Your task to perform on an android device: Show me productivity apps on the Play Store Image 0: 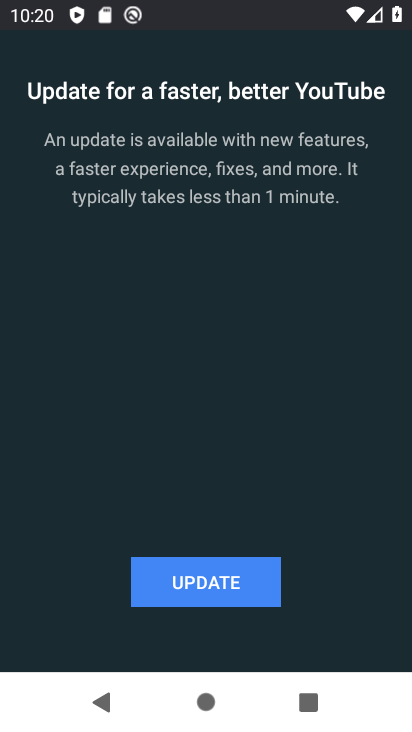
Step 0: press home button
Your task to perform on an android device: Show me productivity apps on the Play Store Image 1: 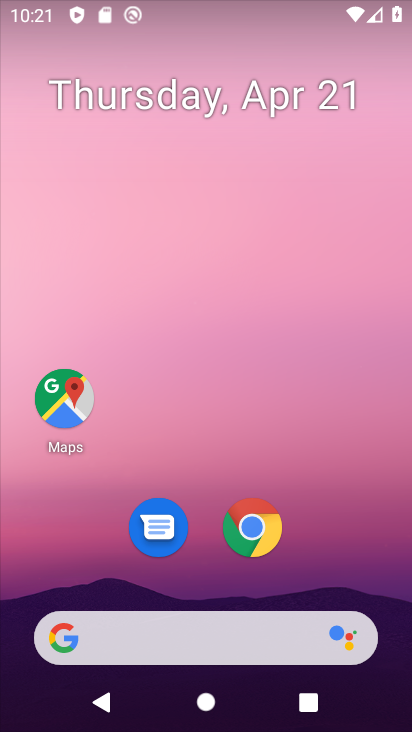
Step 1: drag from (366, 586) to (397, 121)
Your task to perform on an android device: Show me productivity apps on the Play Store Image 2: 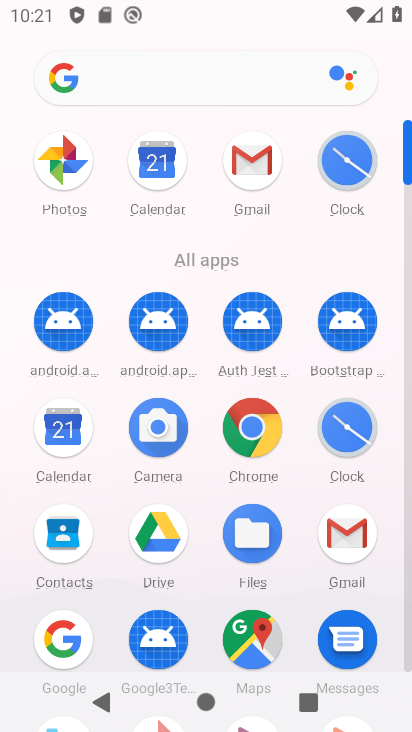
Step 2: drag from (217, 614) to (229, 332)
Your task to perform on an android device: Show me productivity apps on the Play Store Image 3: 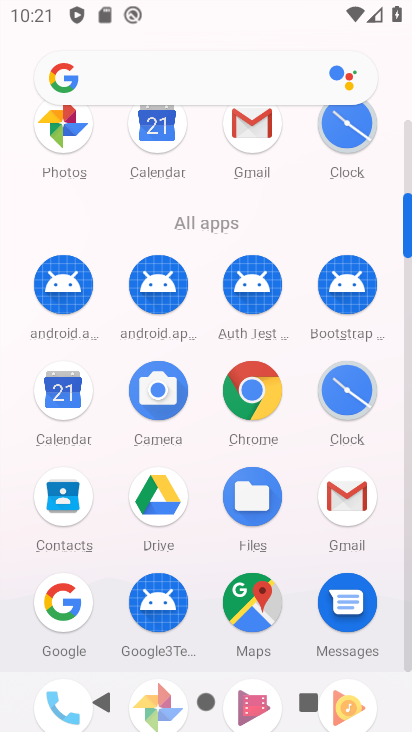
Step 3: drag from (214, 668) to (229, 383)
Your task to perform on an android device: Show me productivity apps on the Play Store Image 4: 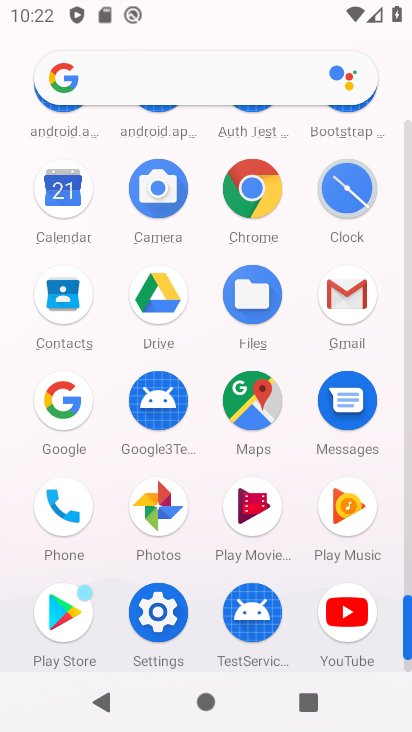
Step 4: click (68, 595)
Your task to perform on an android device: Show me productivity apps on the Play Store Image 5: 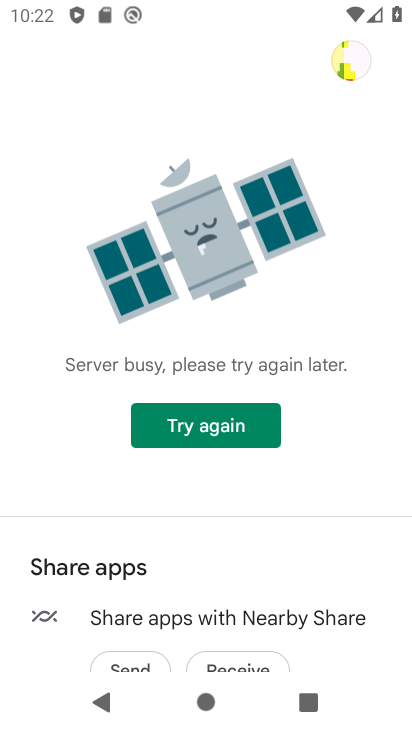
Step 5: press back button
Your task to perform on an android device: Show me productivity apps on the Play Store Image 6: 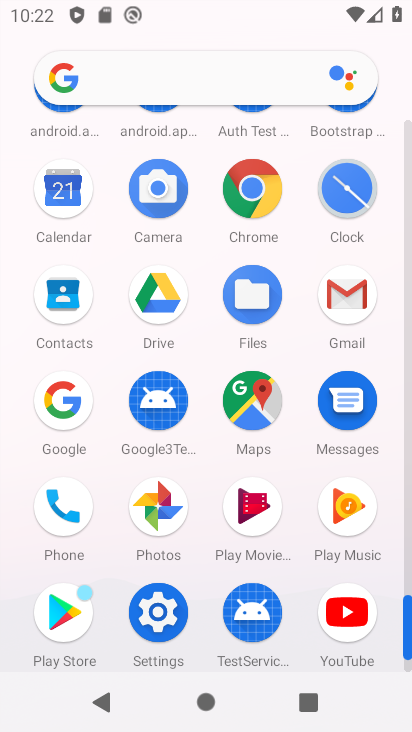
Step 6: click (51, 612)
Your task to perform on an android device: Show me productivity apps on the Play Store Image 7: 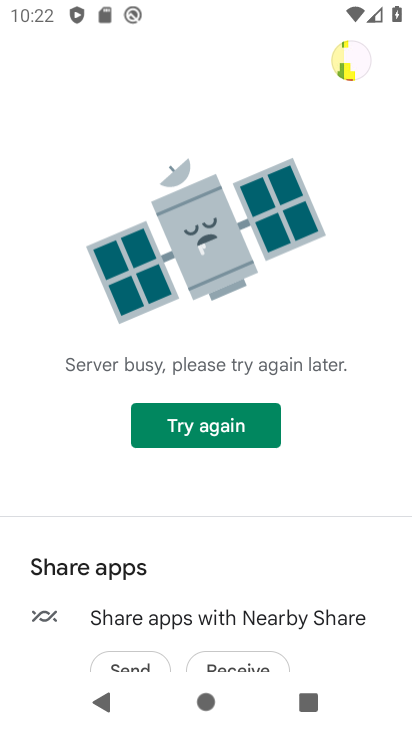
Step 7: click (207, 438)
Your task to perform on an android device: Show me productivity apps on the Play Store Image 8: 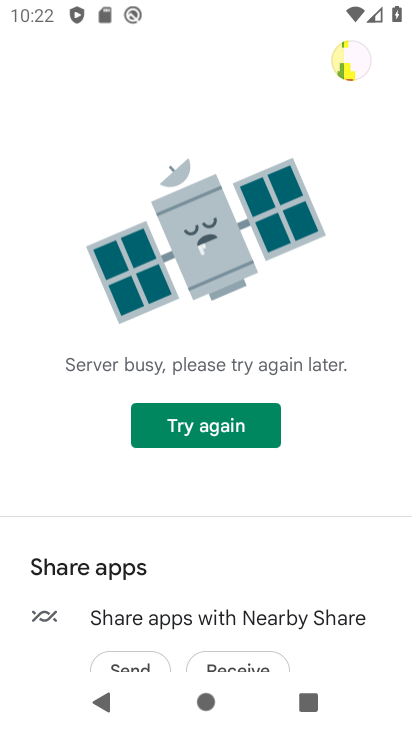
Step 8: task complete